Your task to perform on an android device: Play the new Justin Bieber video on YouTube Image 0: 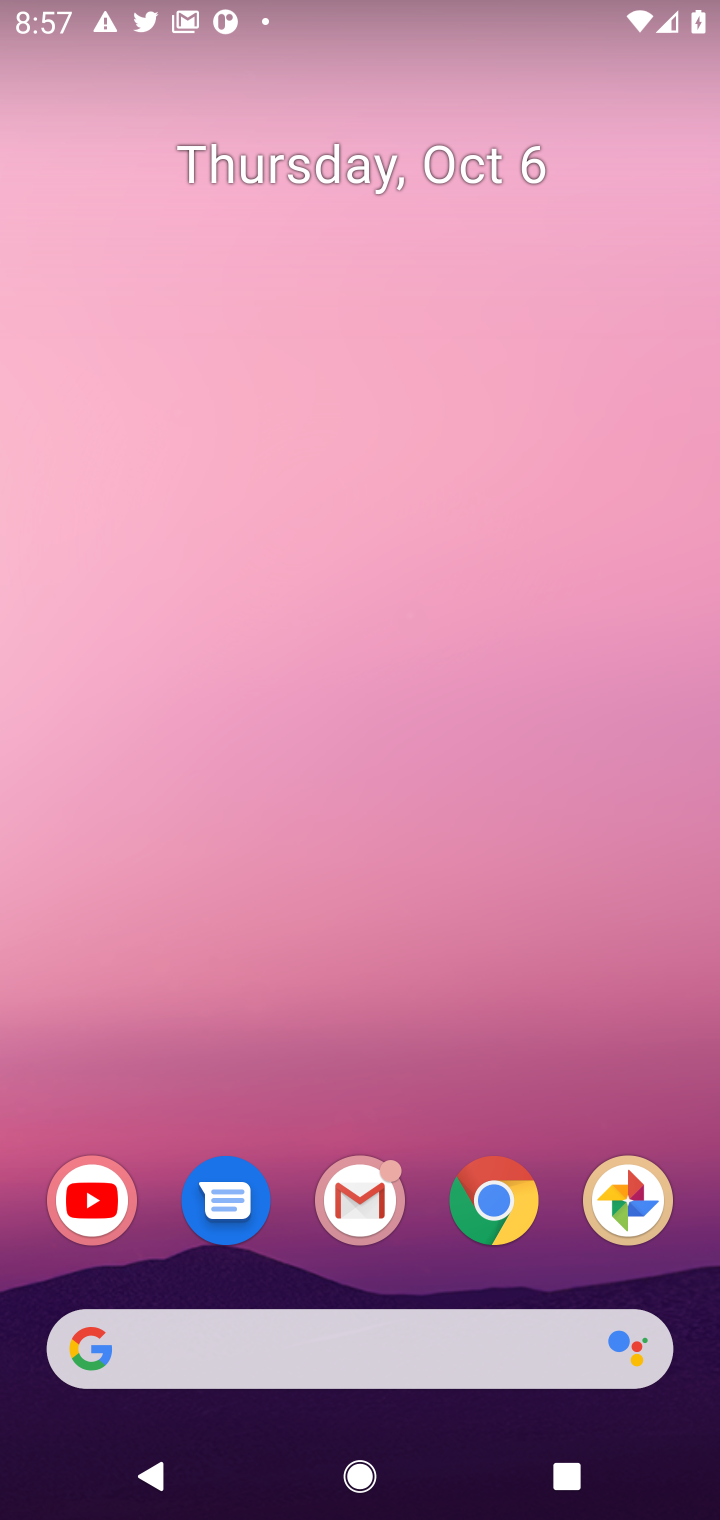
Step 0: click (501, 1195)
Your task to perform on an android device: Play the new Justin Bieber video on YouTube Image 1: 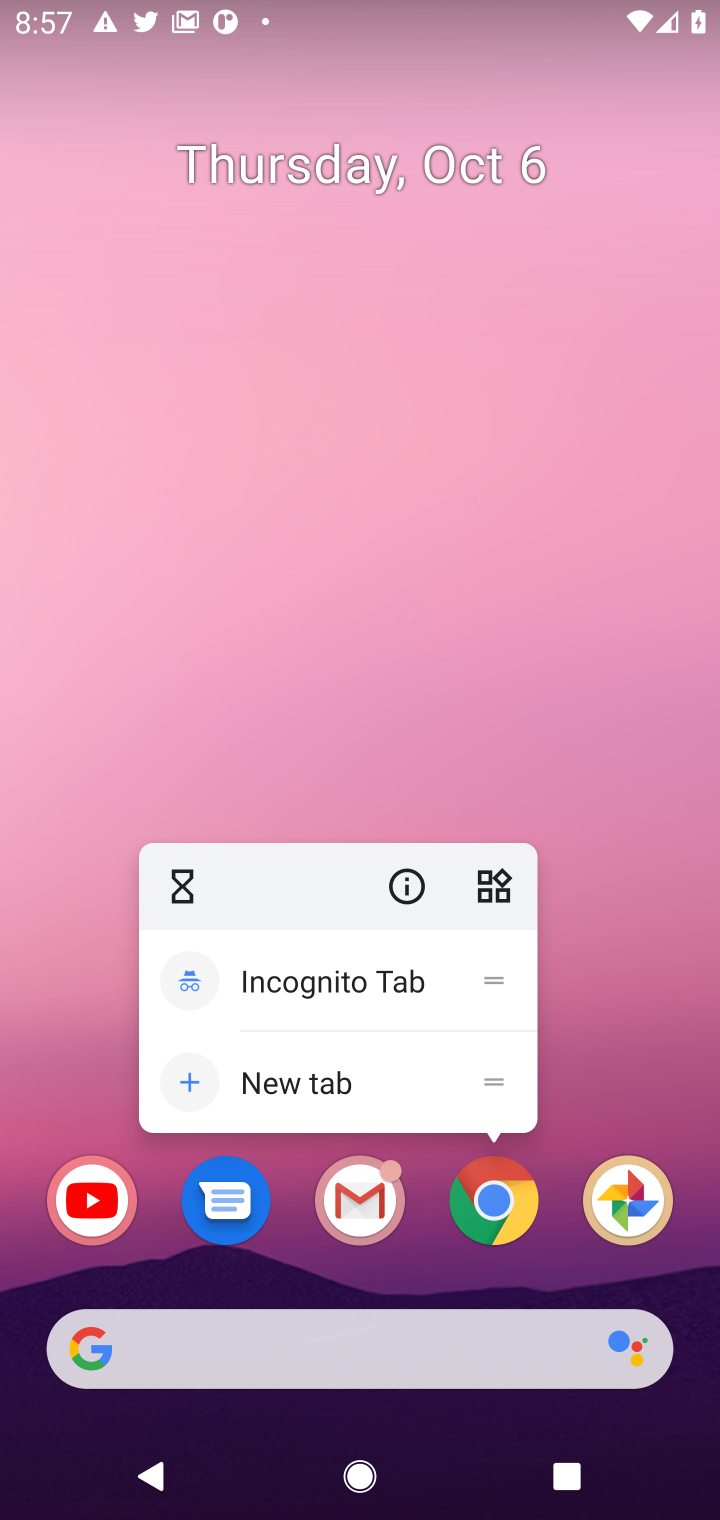
Step 1: press back button
Your task to perform on an android device: Play the new Justin Bieber video on YouTube Image 2: 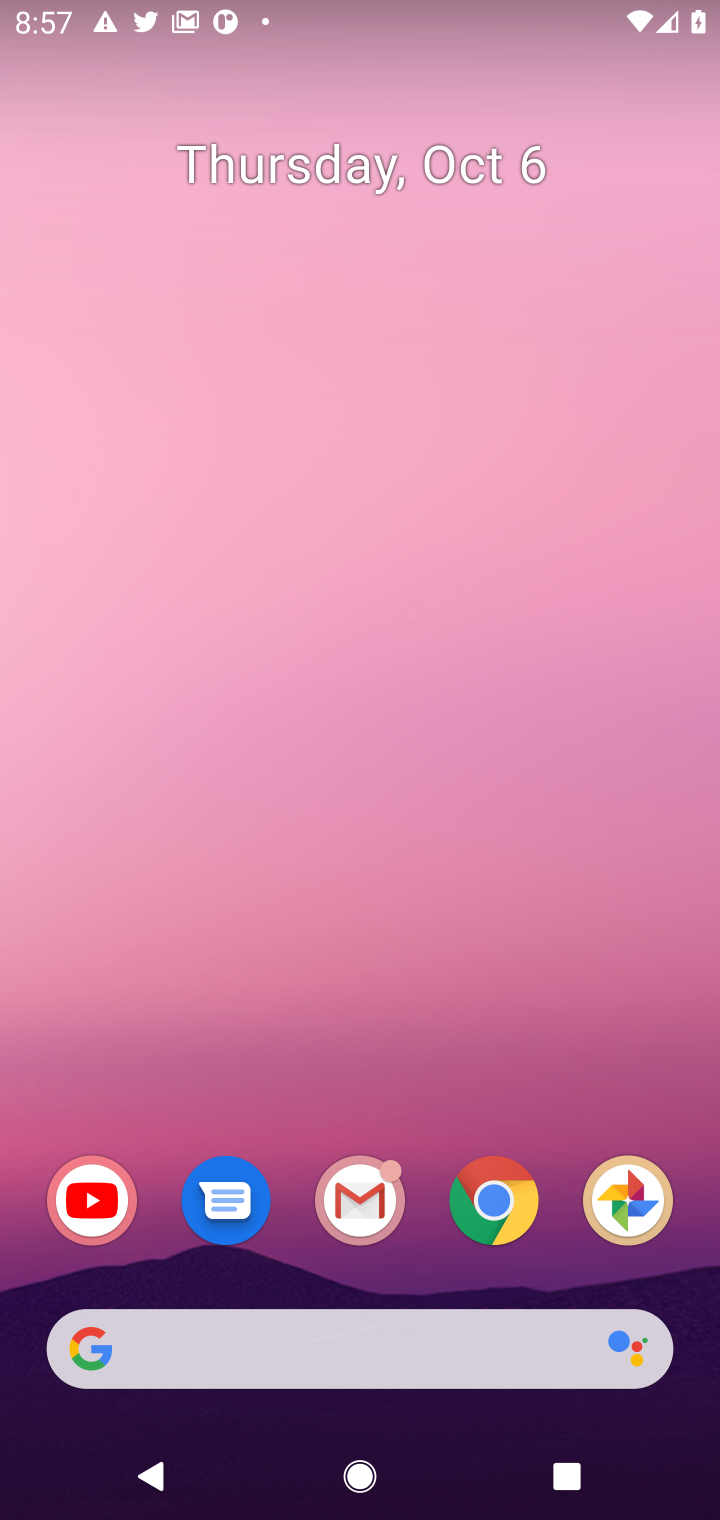
Step 2: click (504, 1209)
Your task to perform on an android device: Play the new Justin Bieber video on YouTube Image 3: 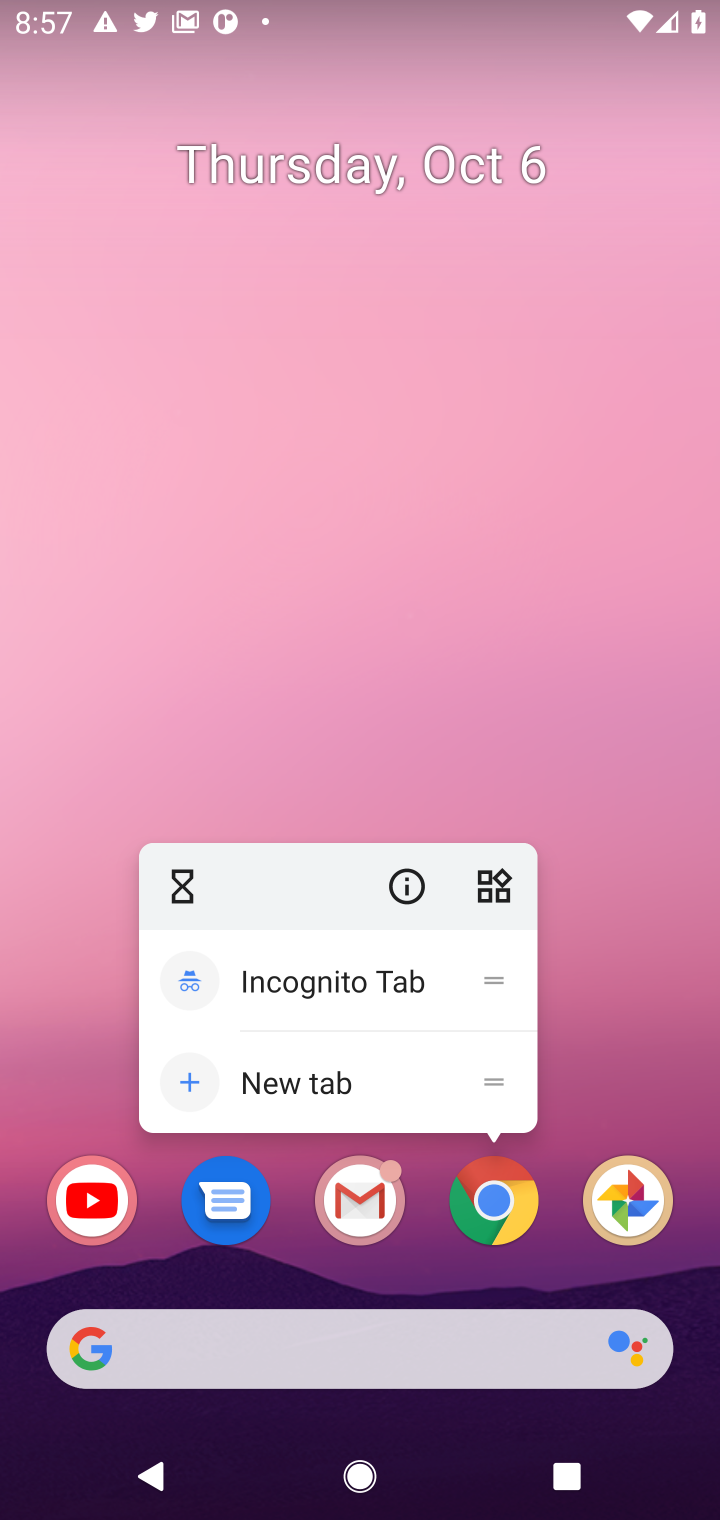
Step 3: click (501, 1228)
Your task to perform on an android device: Play the new Justin Bieber video on YouTube Image 4: 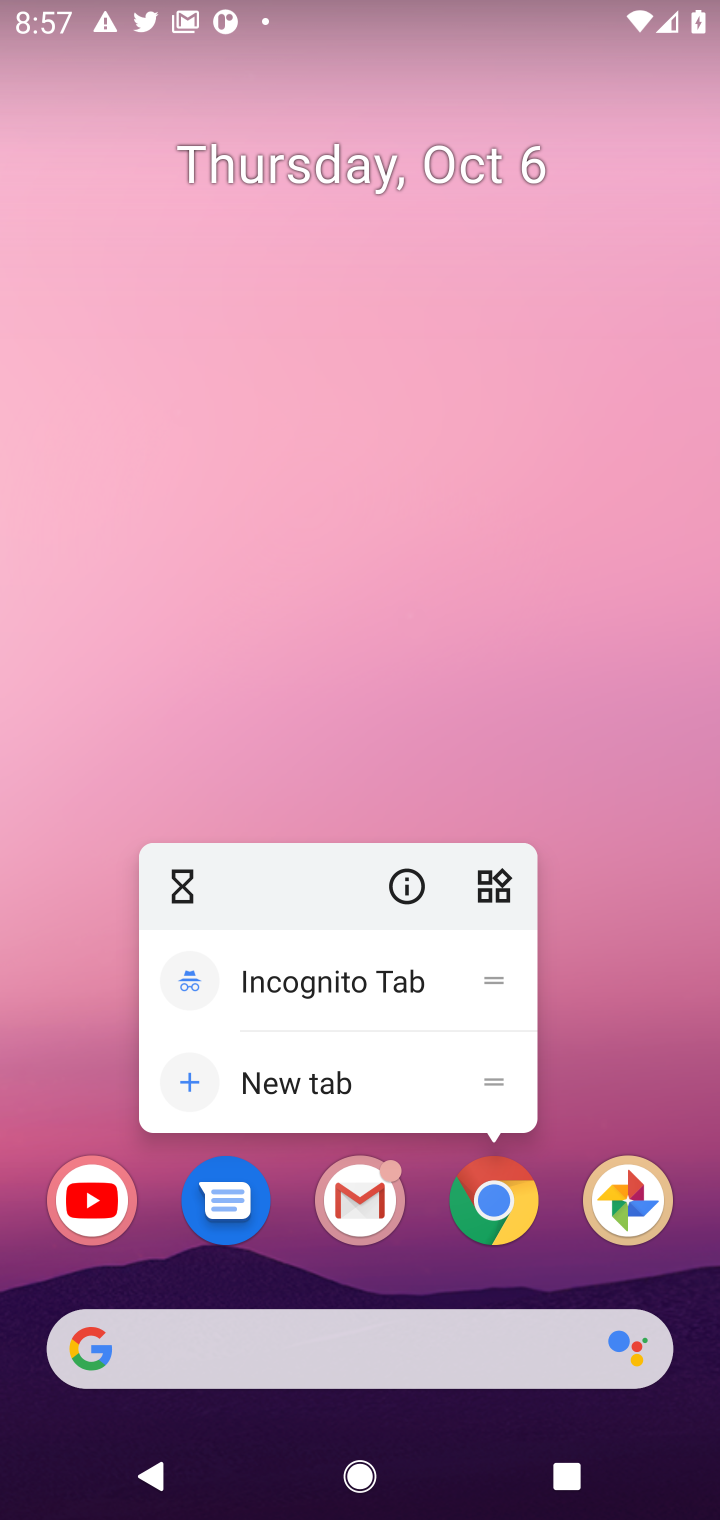
Step 4: click (500, 1208)
Your task to perform on an android device: Play the new Justin Bieber video on YouTube Image 5: 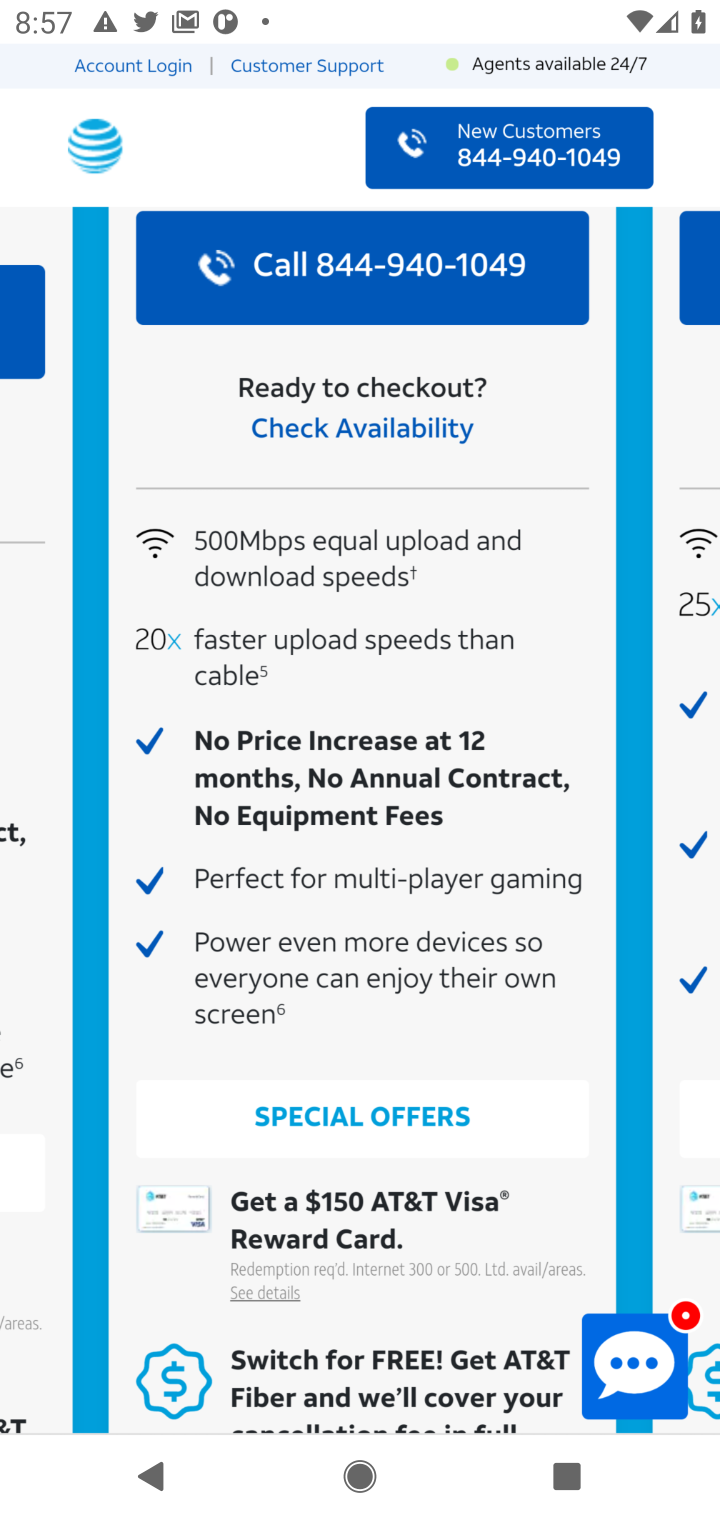
Step 5: press home button
Your task to perform on an android device: Play the new Justin Bieber video on YouTube Image 6: 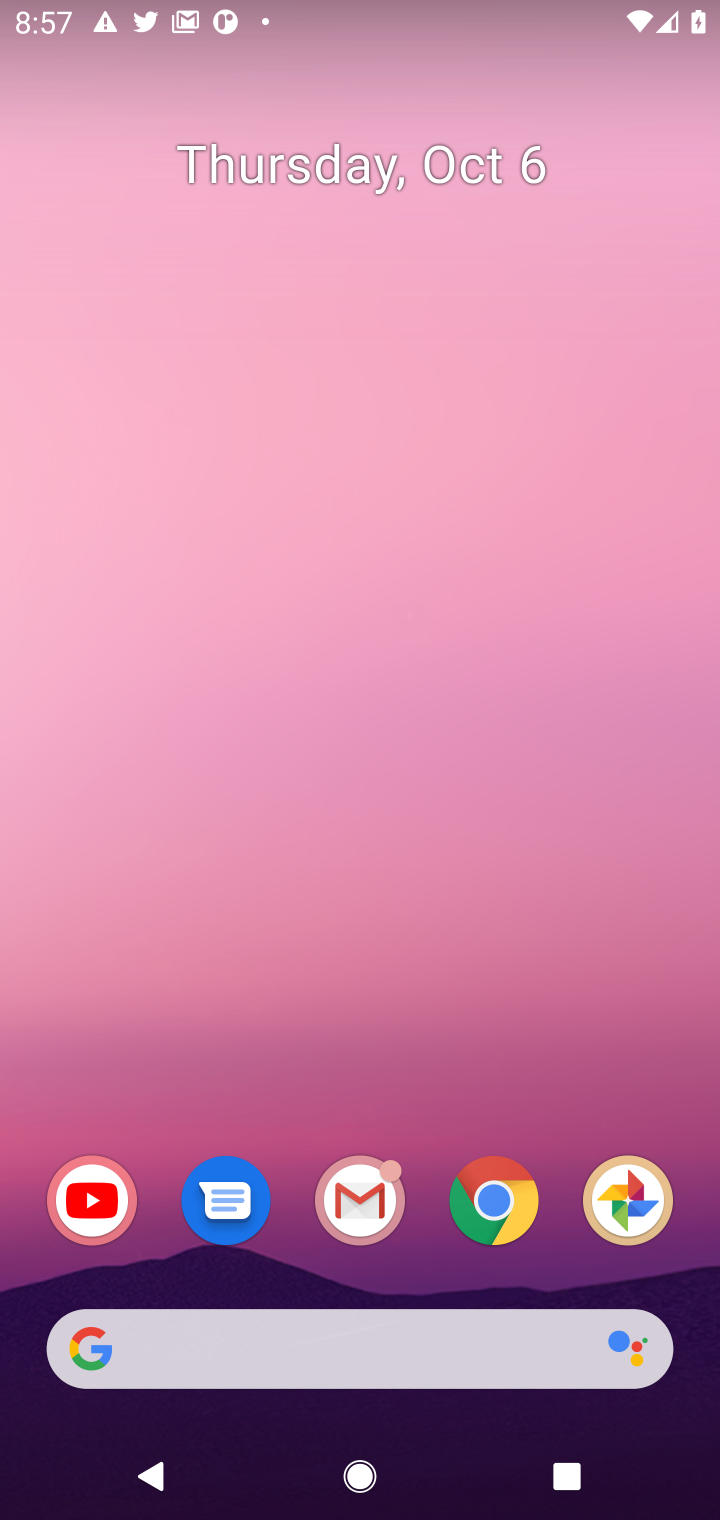
Step 6: click (484, 1193)
Your task to perform on an android device: Play the new Justin Bieber video on YouTube Image 7: 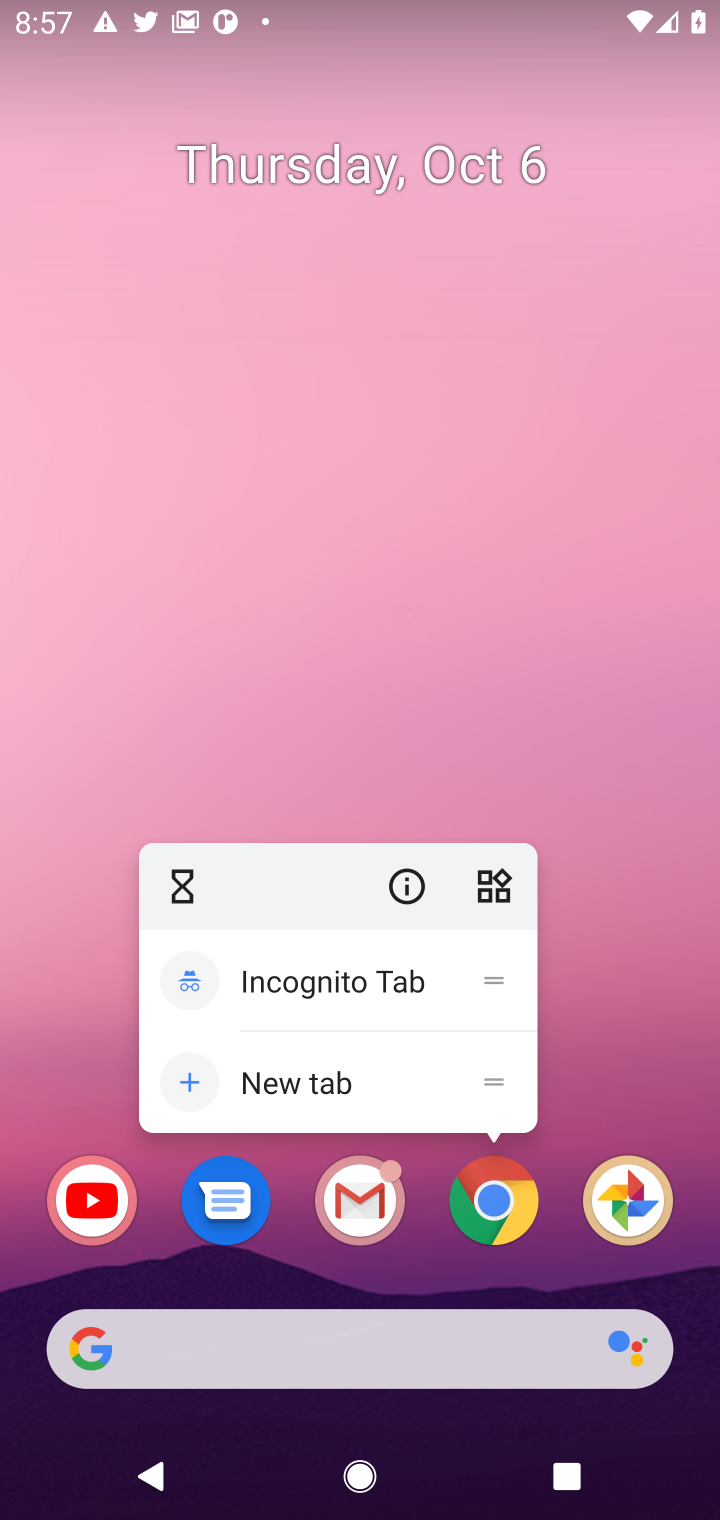
Step 7: press back button
Your task to perform on an android device: Play the new Justin Bieber video on YouTube Image 8: 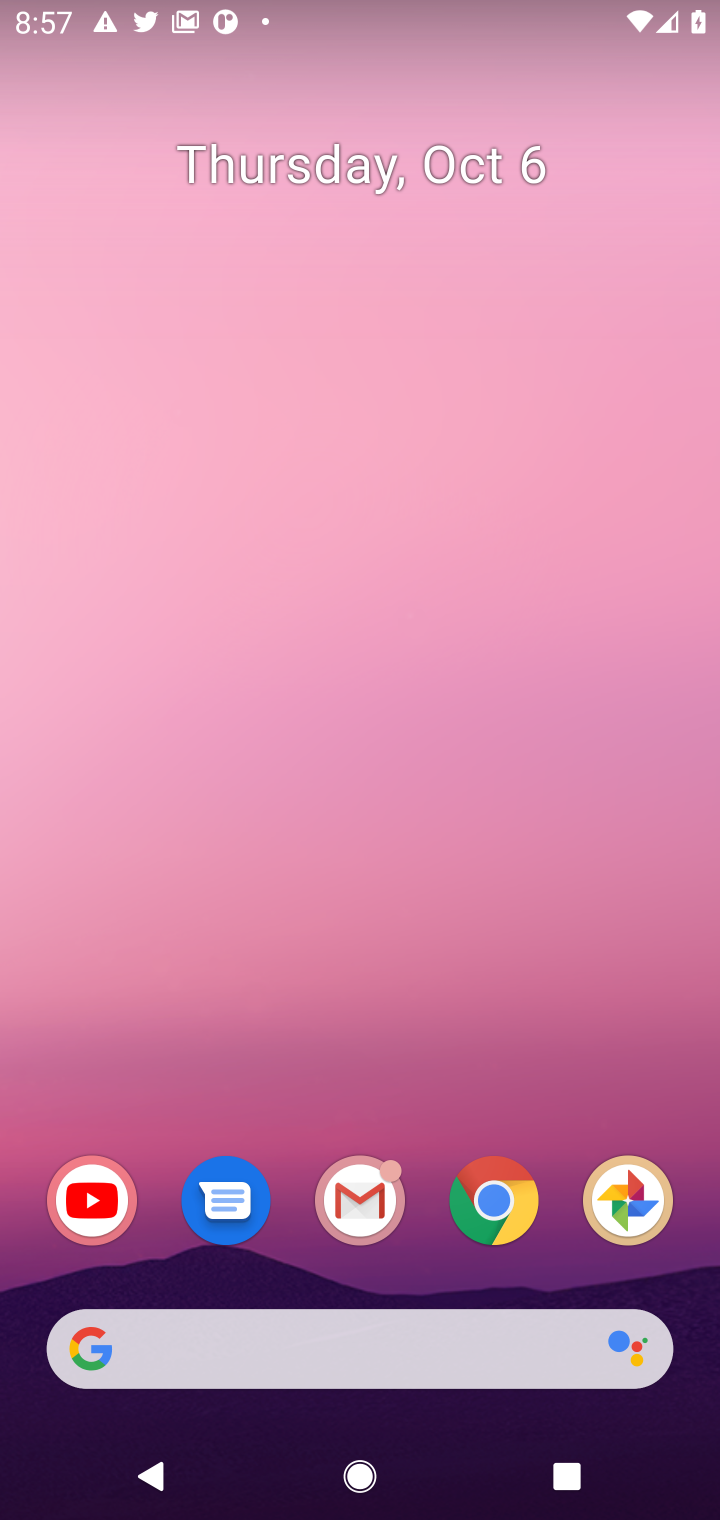
Step 8: click (492, 1204)
Your task to perform on an android device: Play the new Justin Bieber video on YouTube Image 9: 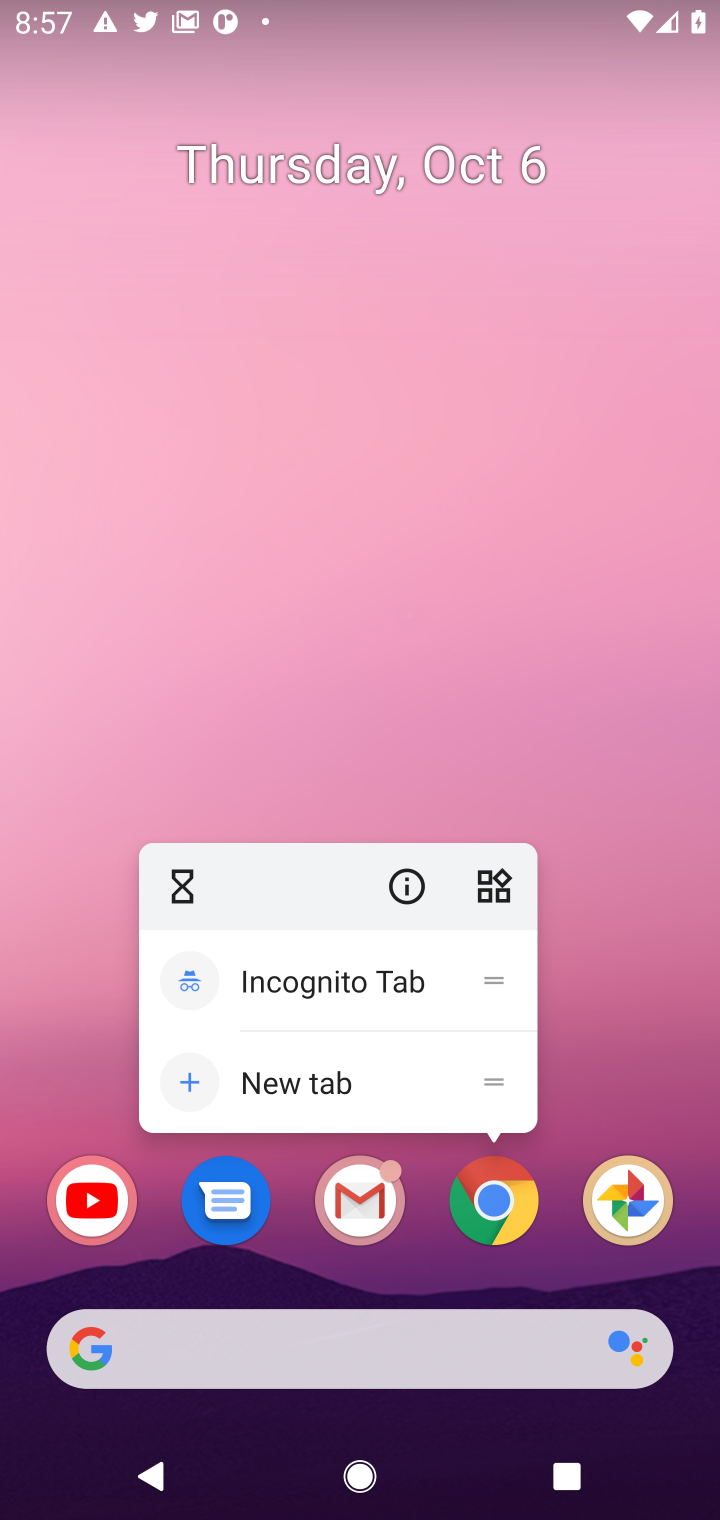
Step 9: click (478, 1225)
Your task to perform on an android device: Play the new Justin Bieber video on YouTube Image 10: 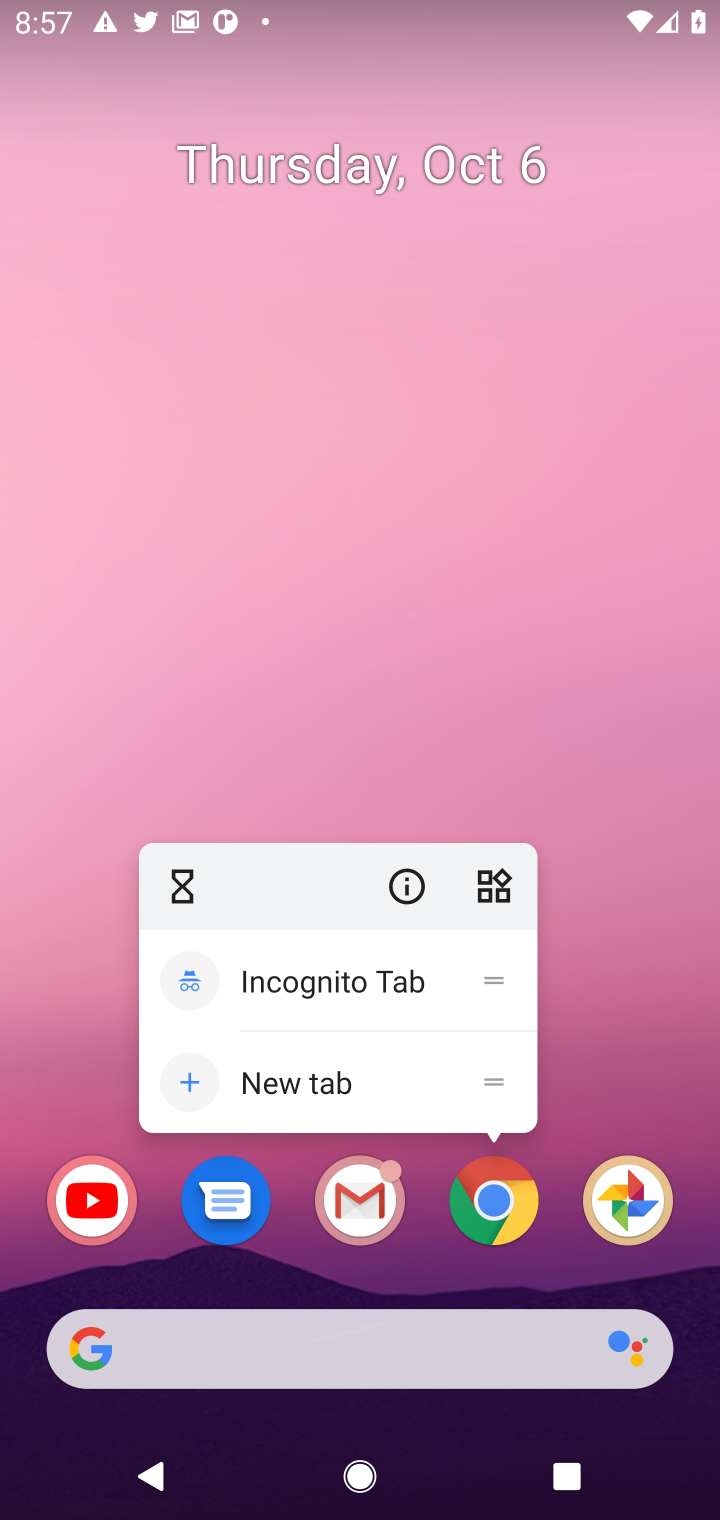
Step 10: press home button
Your task to perform on an android device: Play the new Justin Bieber video on YouTube Image 11: 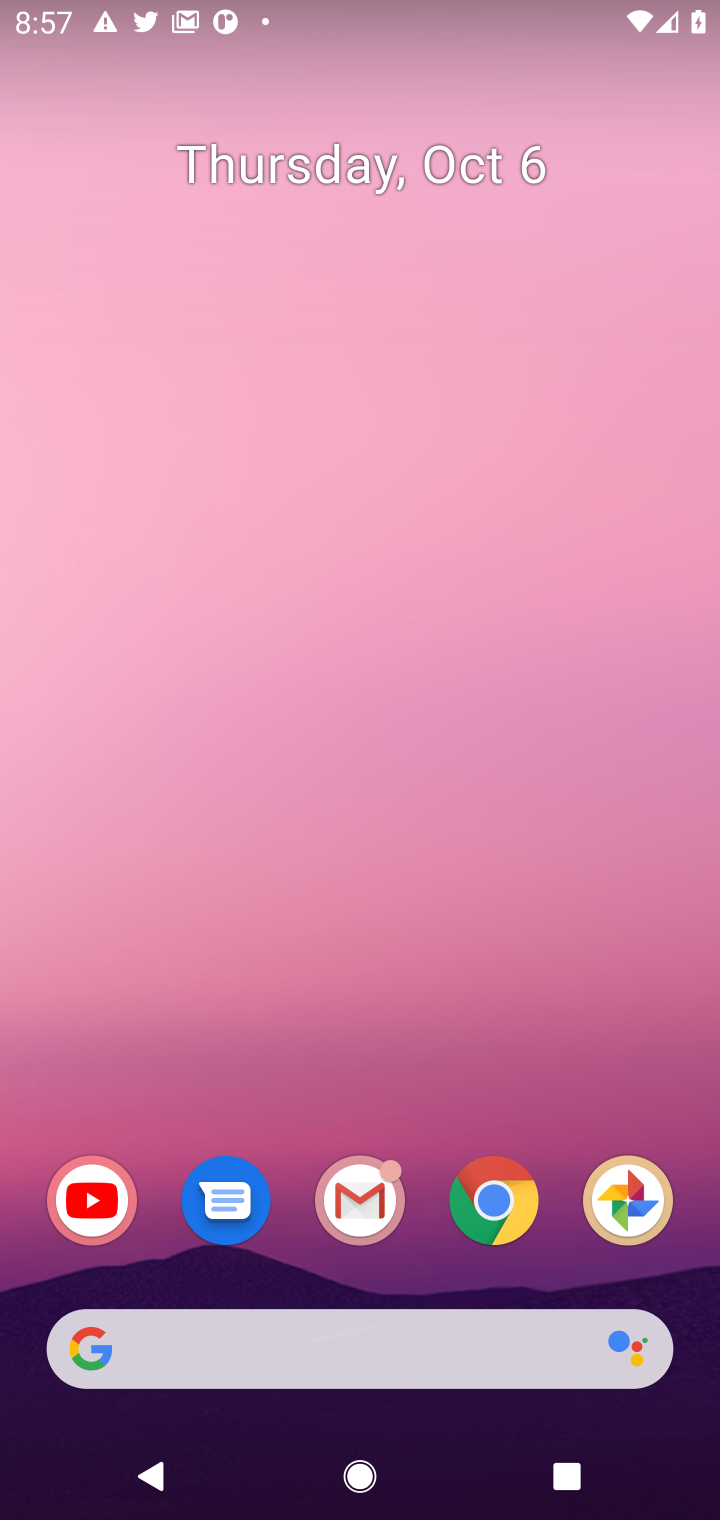
Step 11: click (498, 1207)
Your task to perform on an android device: Play the new Justin Bieber video on YouTube Image 12: 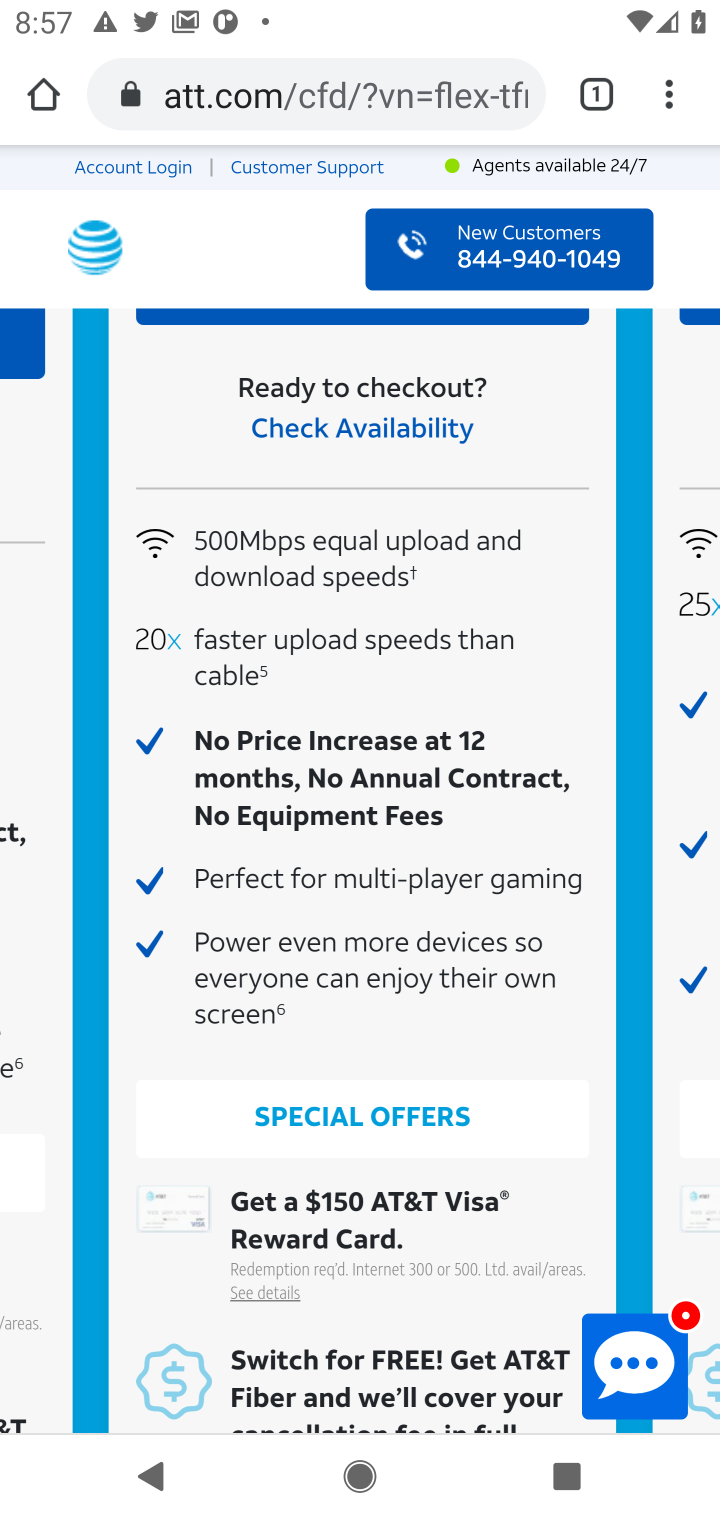
Step 12: click (446, 66)
Your task to perform on an android device: Play the new Justin Bieber video on YouTube Image 13: 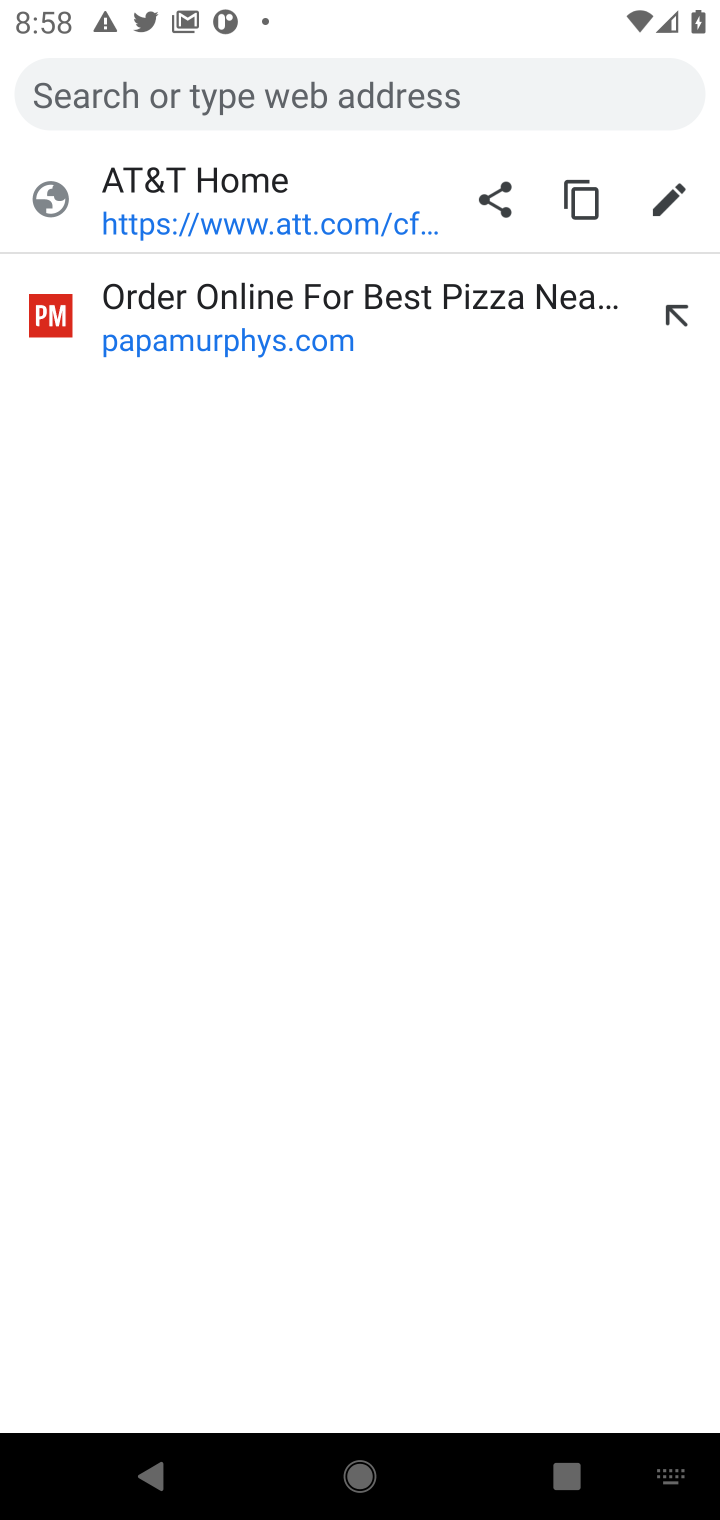
Step 13: type "youtube"
Your task to perform on an android device: Play the new Justin Bieber video on YouTube Image 14: 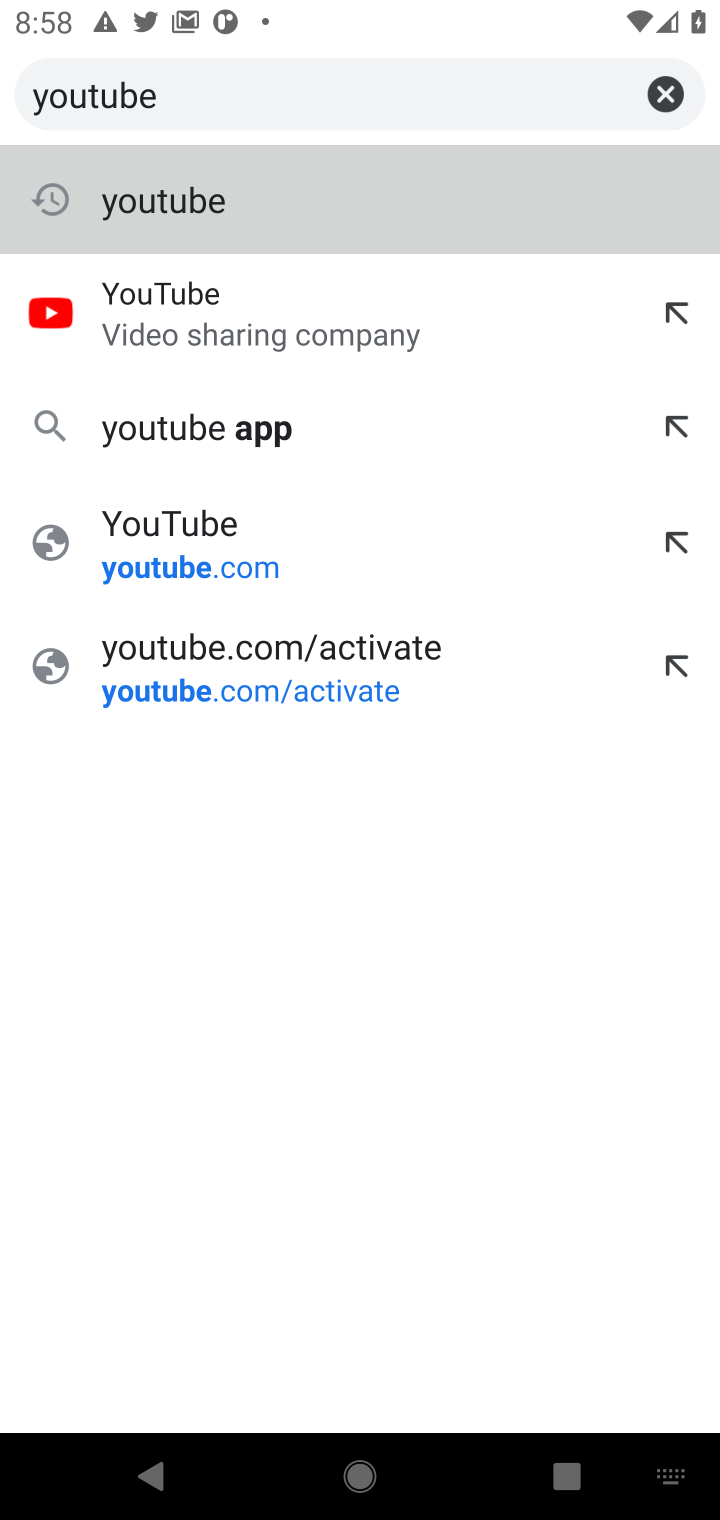
Step 14: type ""
Your task to perform on an android device: Play the new Justin Bieber video on YouTube Image 15: 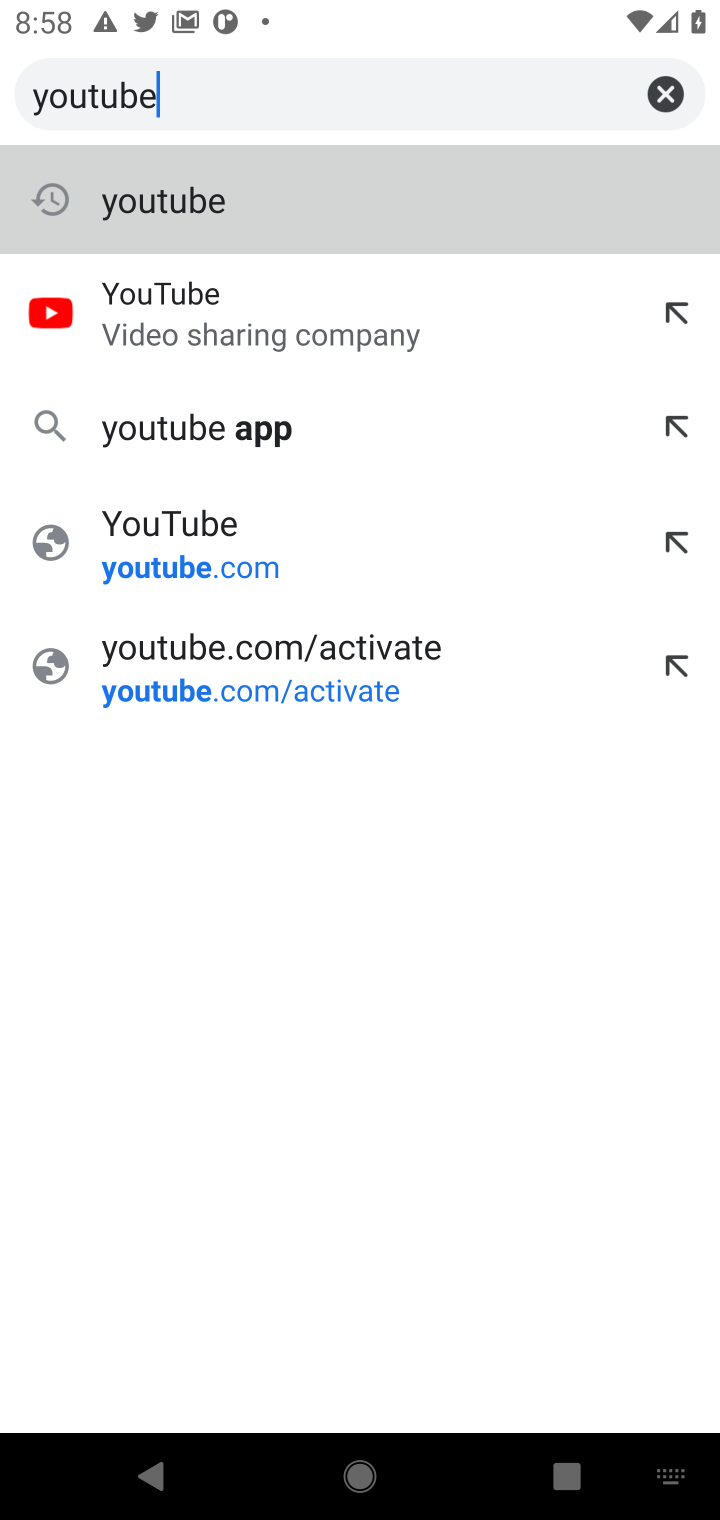
Step 15: click (162, 318)
Your task to perform on an android device: Play the new Justin Bieber video on YouTube Image 16: 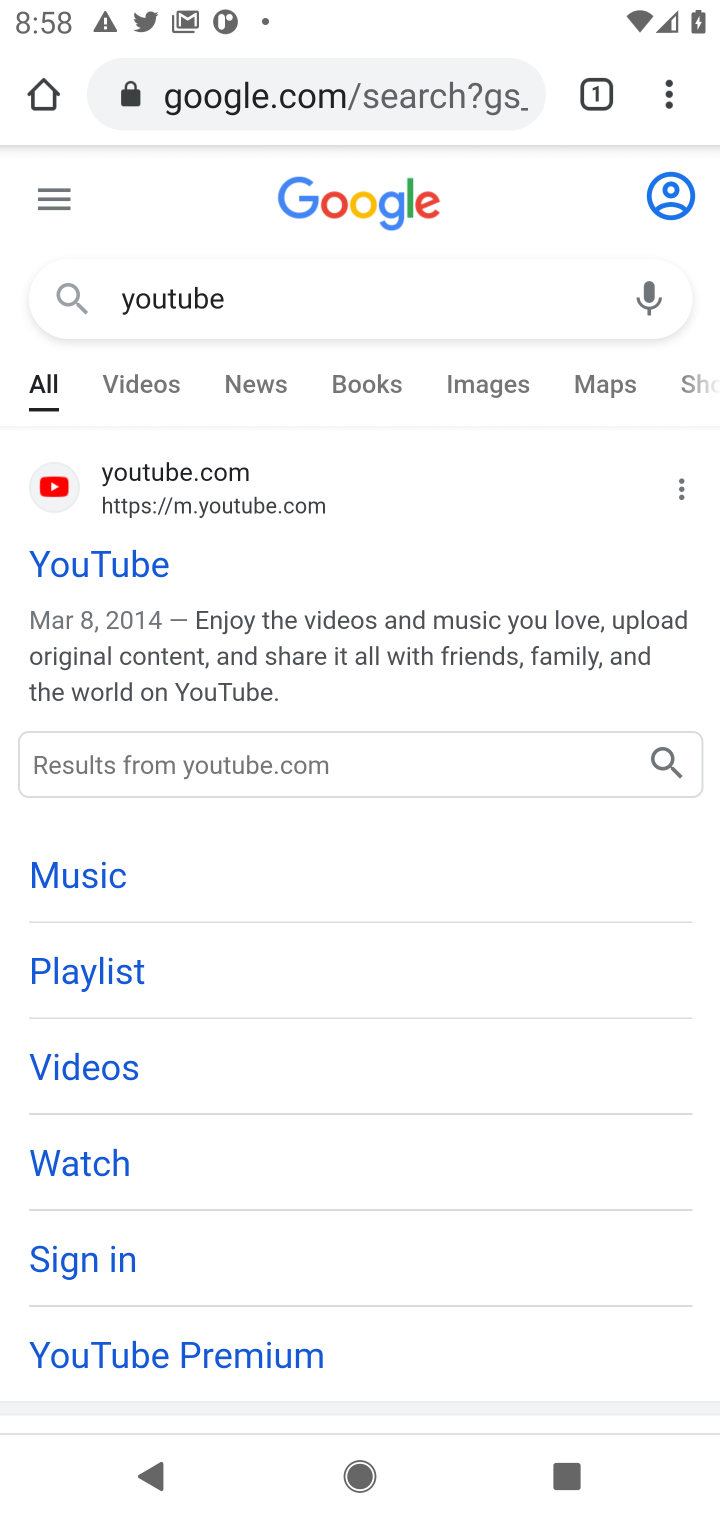
Step 16: click (135, 567)
Your task to perform on an android device: Play the new Justin Bieber video on YouTube Image 17: 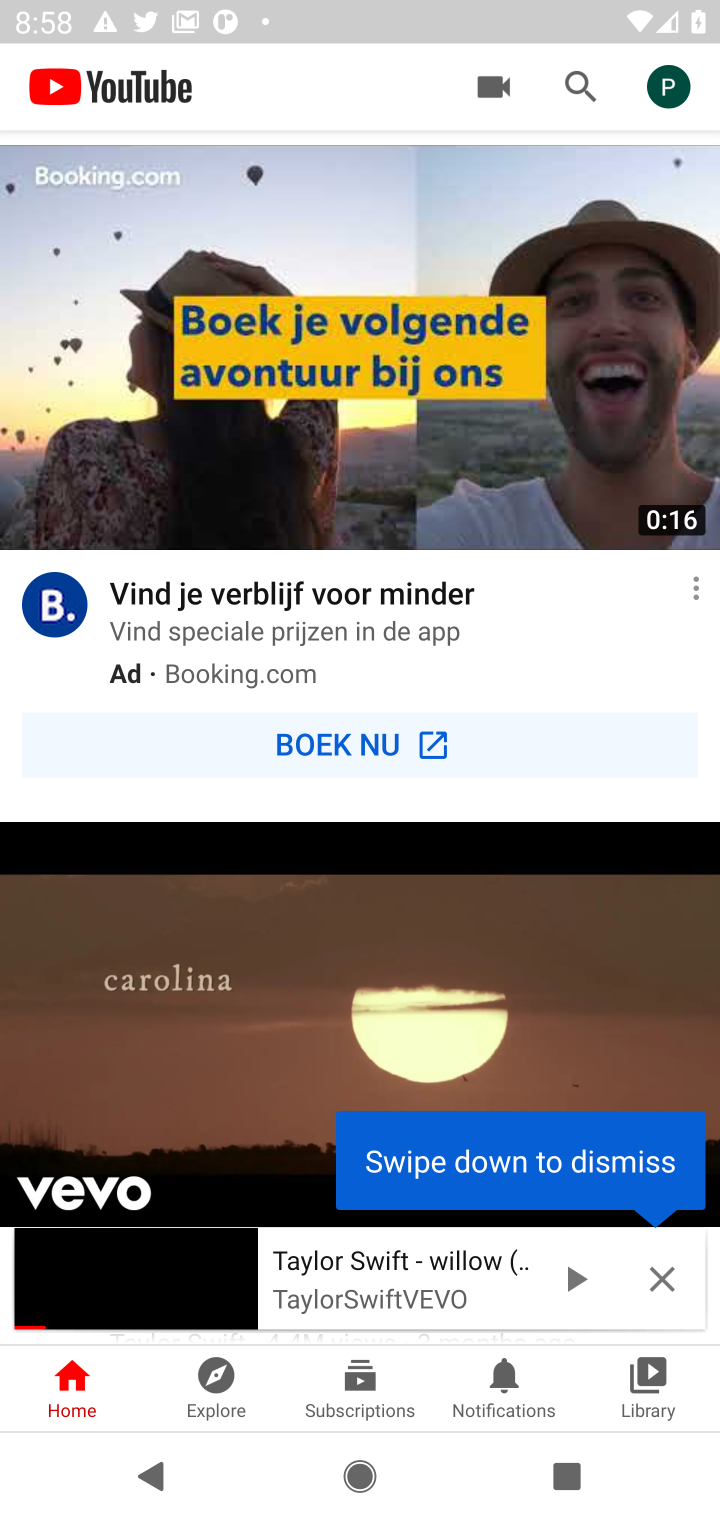
Step 17: click (581, 88)
Your task to perform on an android device: Play the new Justin Bieber video on YouTube Image 18: 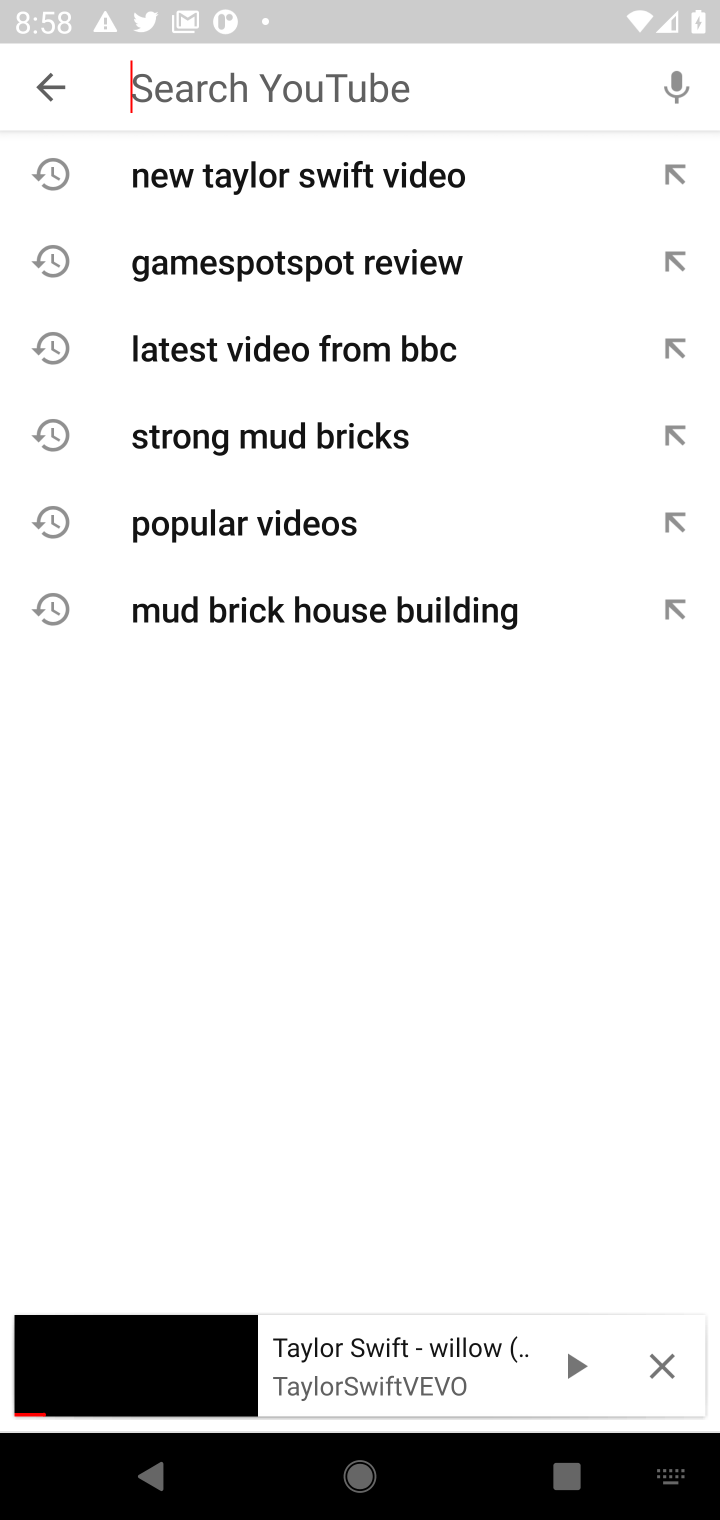
Step 18: type "justin bieber video"
Your task to perform on an android device: Play the new Justin Bieber video on YouTube Image 19: 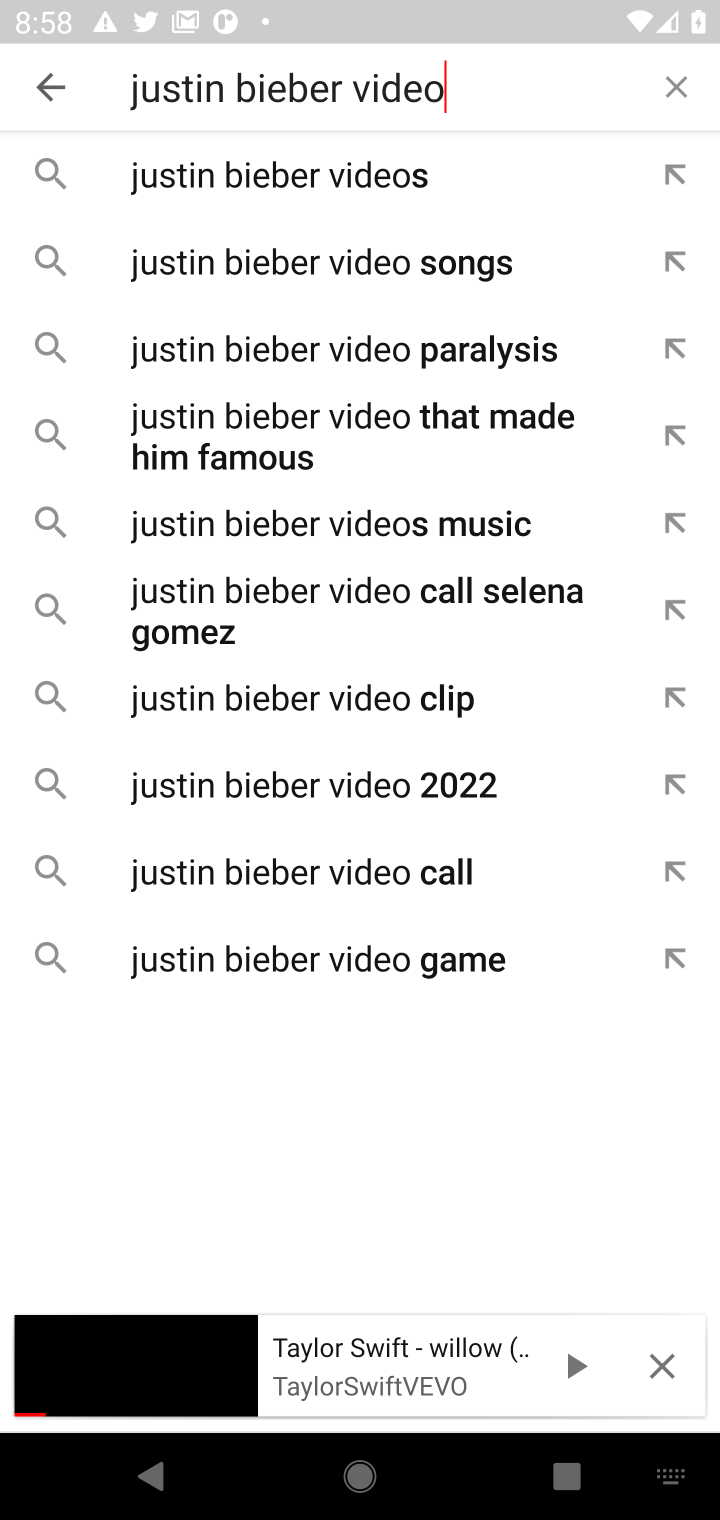
Step 19: click (290, 171)
Your task to perform on an android device: Play the new Justin Bieber video on YouTube Image 20: 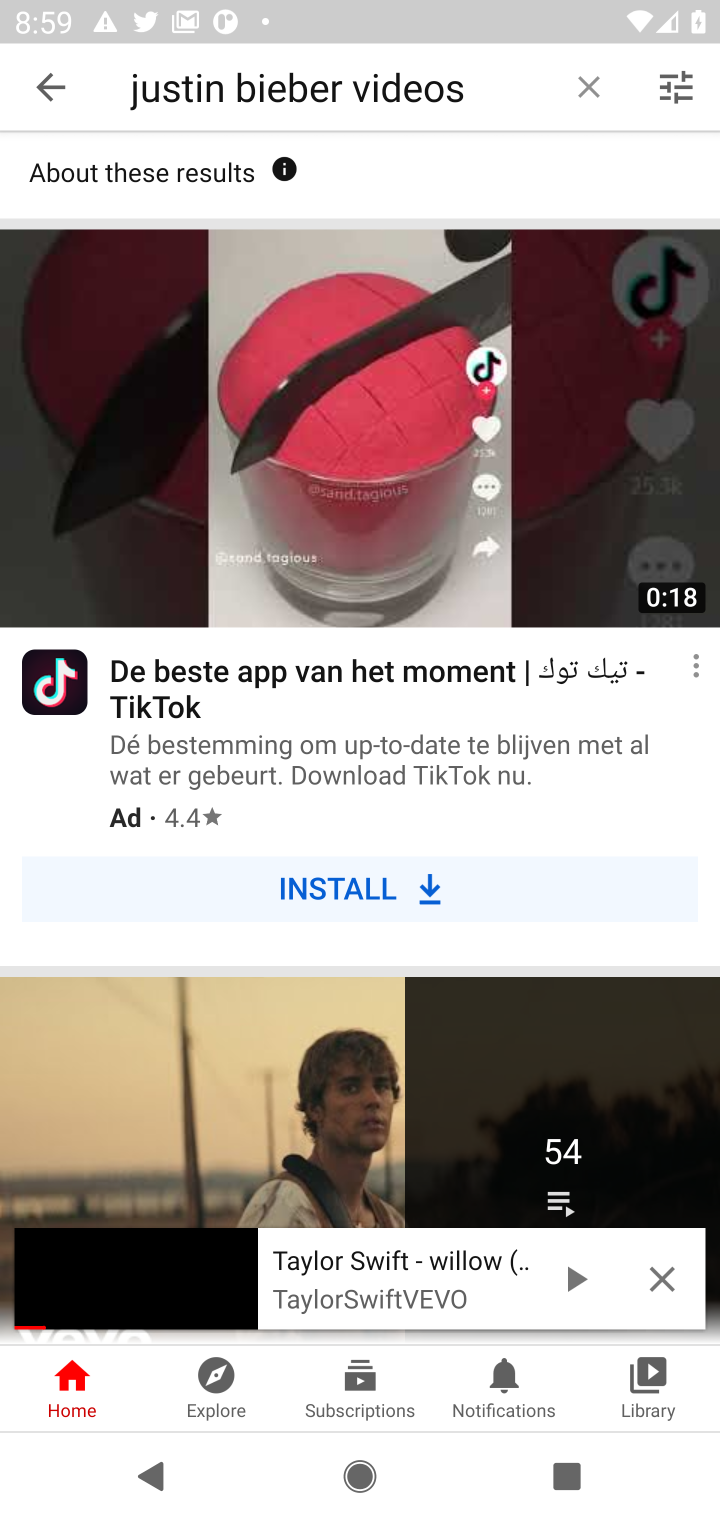
Step 20: drag from (546, 973) to (618, 390)
Your task to perform on an android device: Play the new Justin Bieber video on YouTube Image 21: 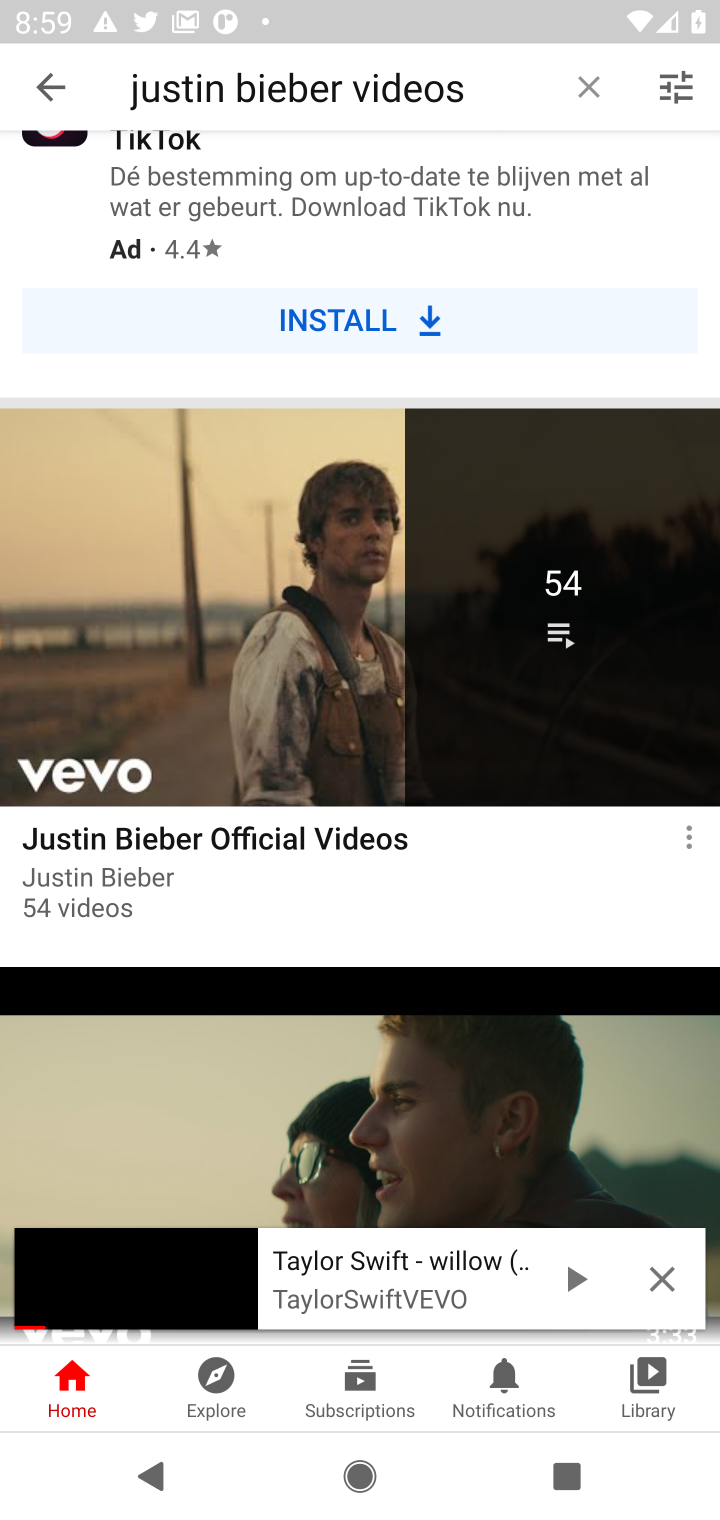
Step 21: click (433, 1119)
Your task to perform on an android device: Play the new Justin Bieber video on YouTube Image 22: 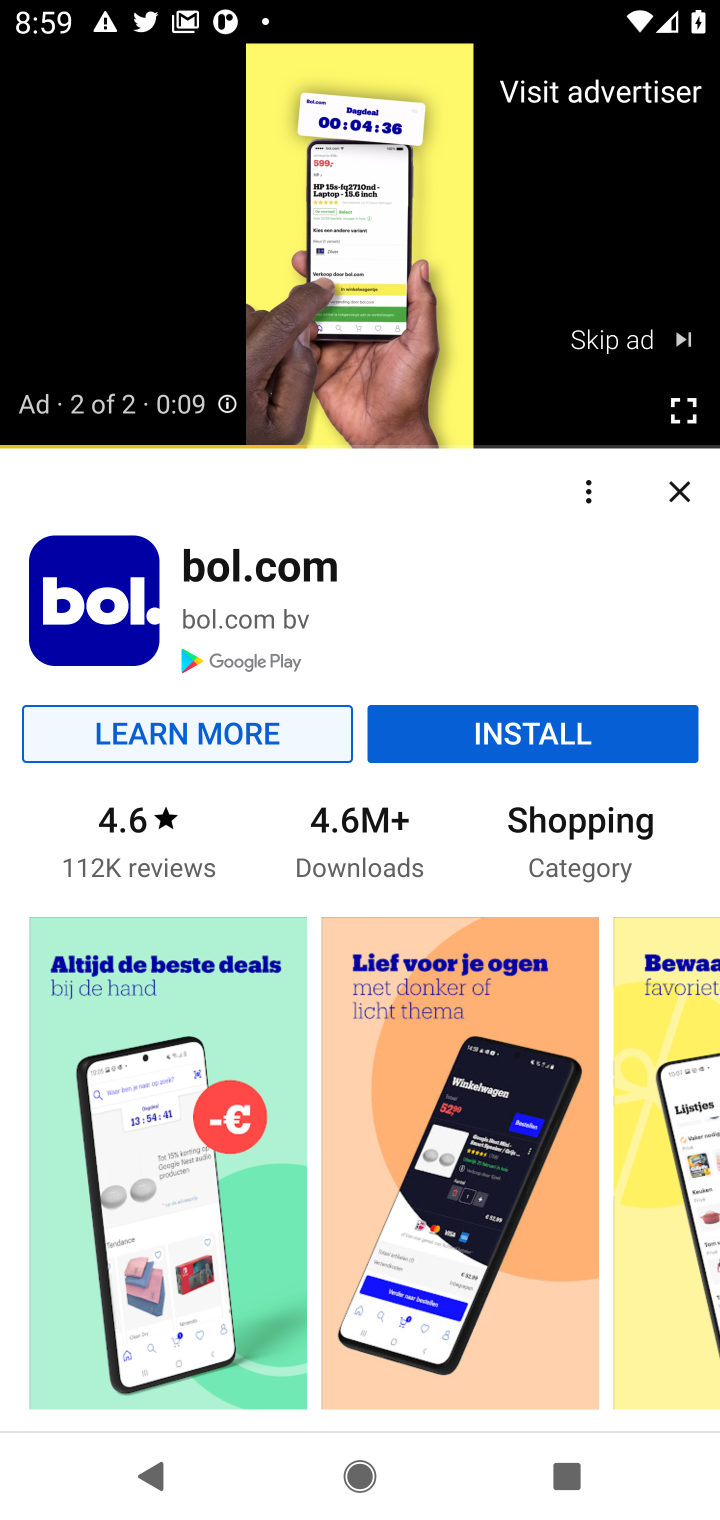
Step 22: click (606, 338)
Your task to perform on an android device: Play the new Justin Bieber video on YouTube Image 23: 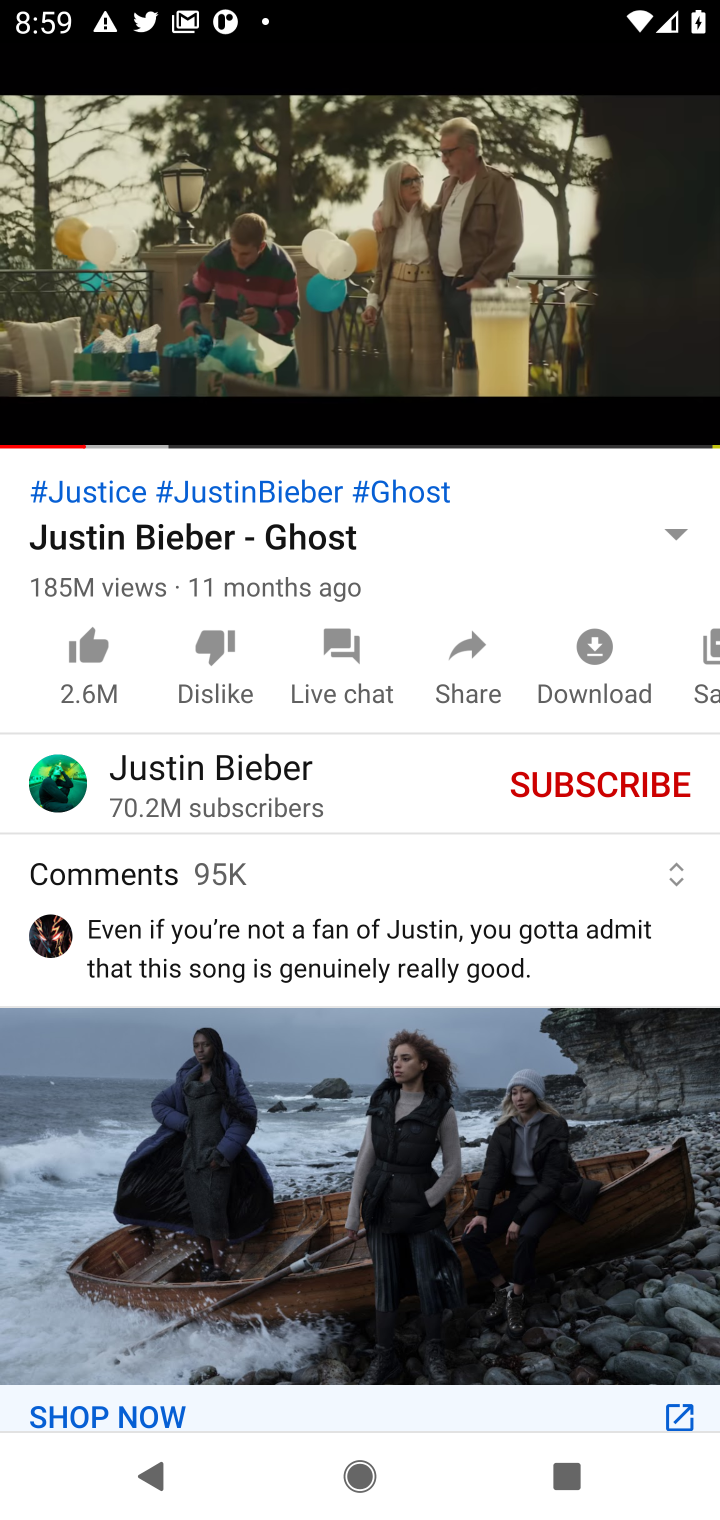
Step 23: task complete